Your task to perform on an android device: toggle airplane mode Image 0: 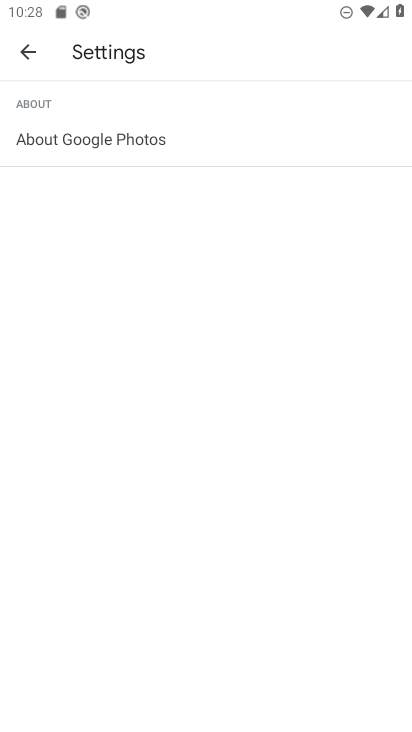
Step 0: press home button
Your task to perform on an android device: toggle airplane mode Image 1: 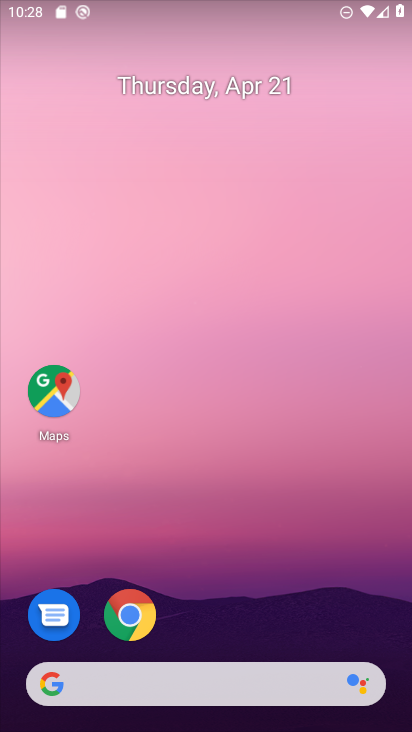
Step 1: drag from (199, 706) to (172, 62)
Your task to perform on an android device: toggle airplane mode Image 2: 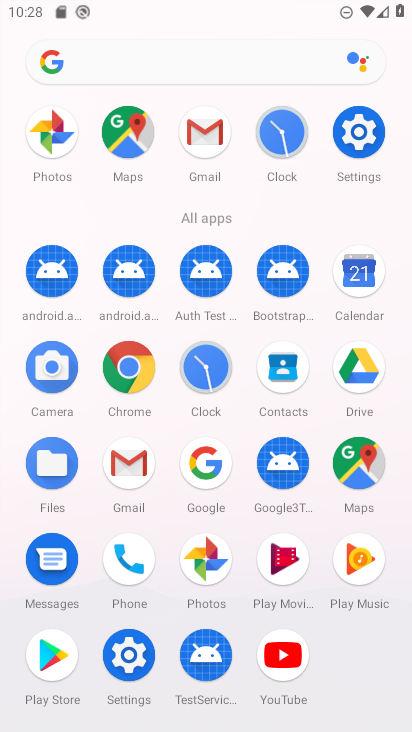
Step 2: click (358, 132)
Your task to perform on an android device: toggle airplane mode Image 3: 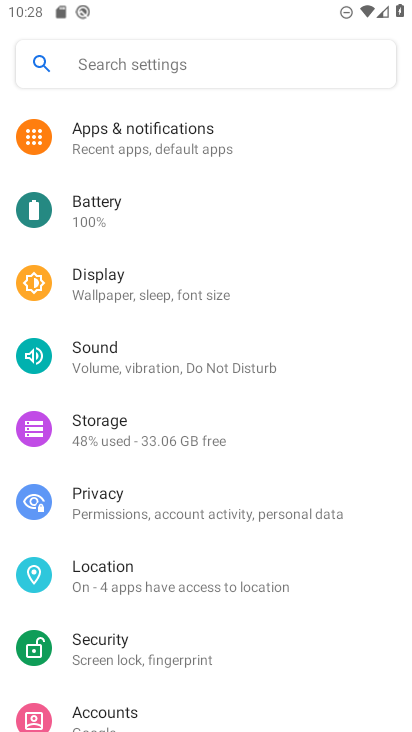
Step 3: drag from (235, 671) to (224, 252)
Your task to perform on an android device: toggle airplane mode Image 4: 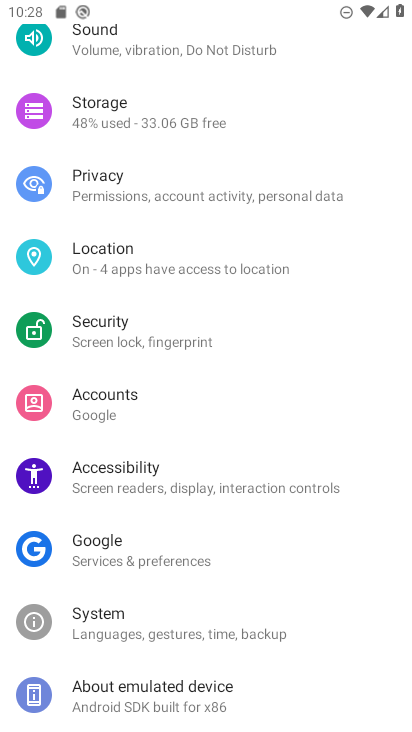
Step 4: drag from (257, 700) to (247, 265)
Your task to perform on an android device: toggle airplane mode Image 5: 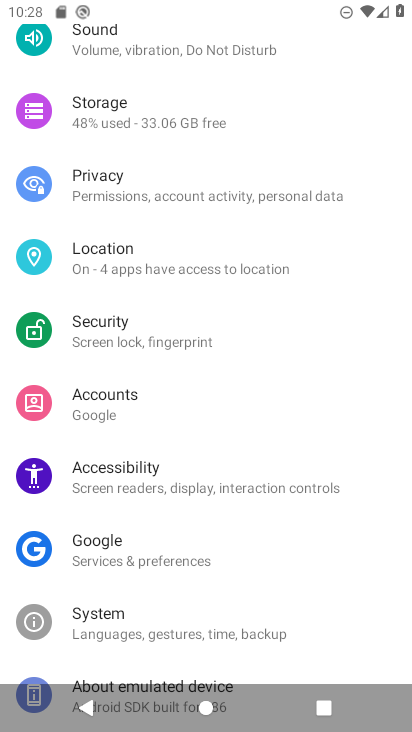
Step 5: drag from (242, 157) to (232, 464)
Your task to perform on an android device: toggle airplane mode Image 6: 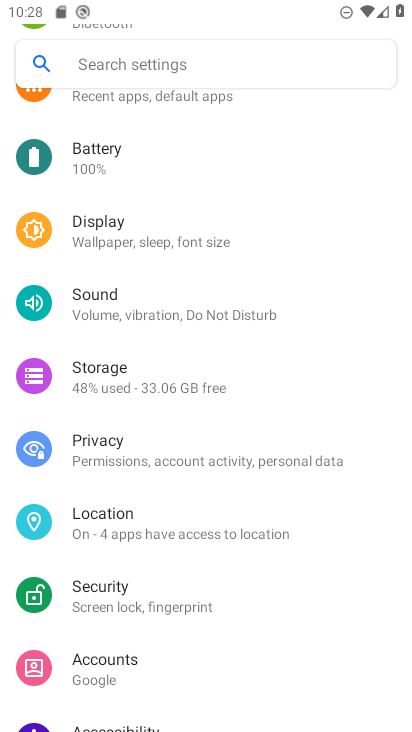
Step 6: drag from (224, 129) to (218, 524)
Your task to perform on an android device: toggle airplane mode Image 7: 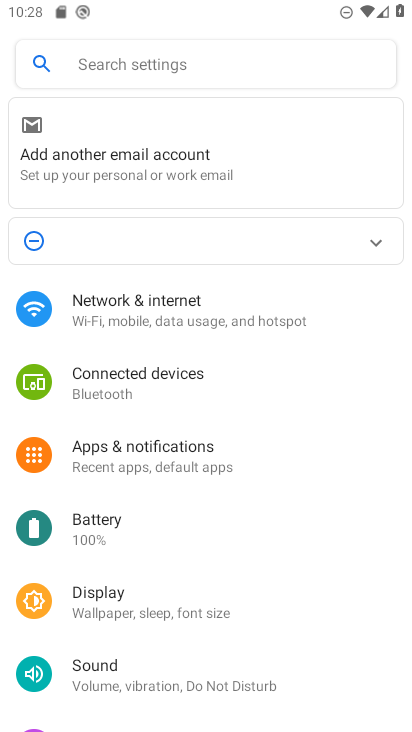
Step 7: click (160, 612)
Your task to perform on an android device: toggle airplane mode Image 8: 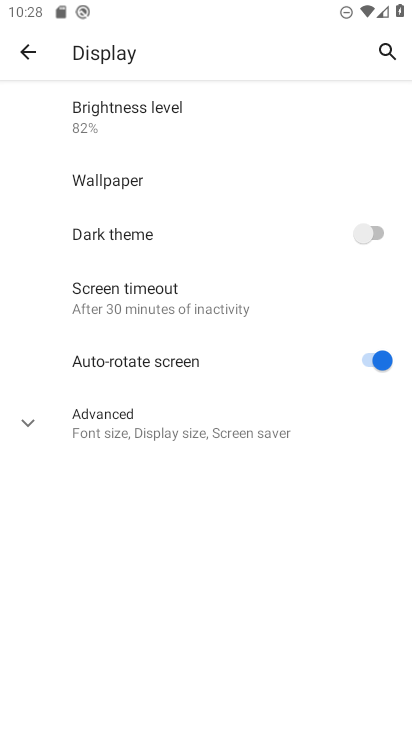
Step 8: task complete